Your task to perform on an android device: turn notification dots on Image 0: 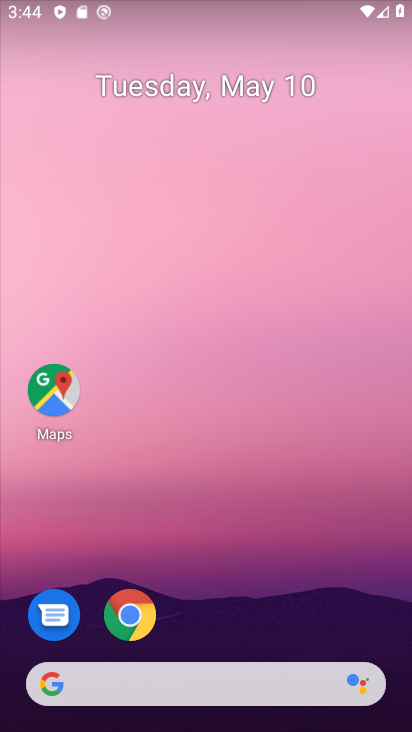
Step 0: drag from (217, 728) to (212, 159)
Your task to perform on an android device: turn notification dots on Image 1: 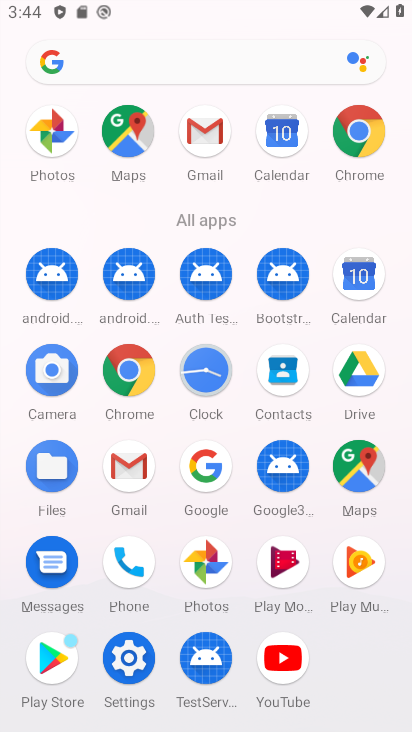
Step 1: click (131, 653)
Your task to perform on an android device: turn notification dots on Image 2: 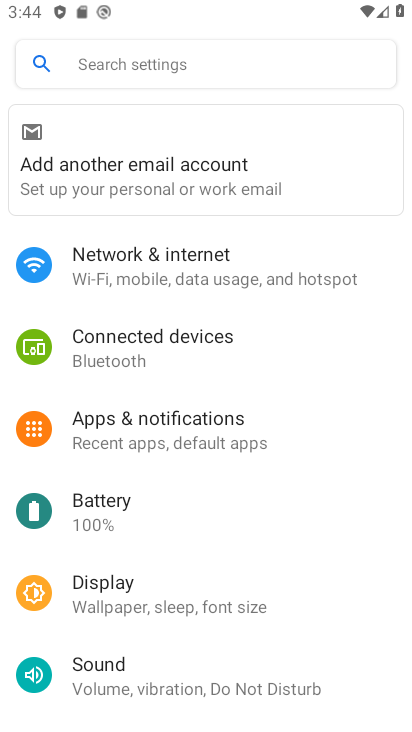
Step 2: click (173, 418)
Your task to perform on an android device: turn notification dots on Image 3: 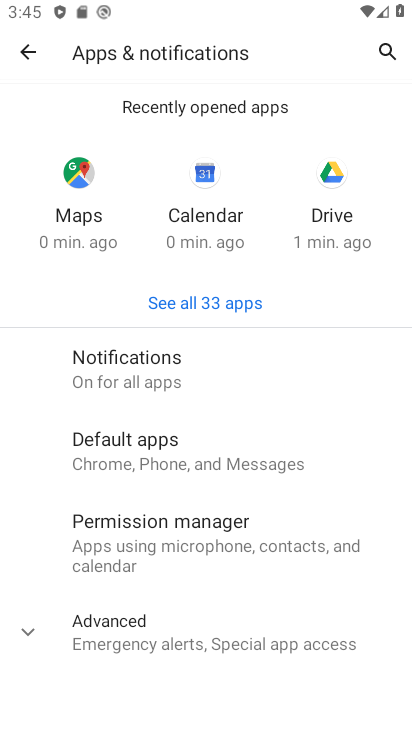
Step 3: click (125, 374)
Your task to perform on an android device: turn notification dots on Image 4: 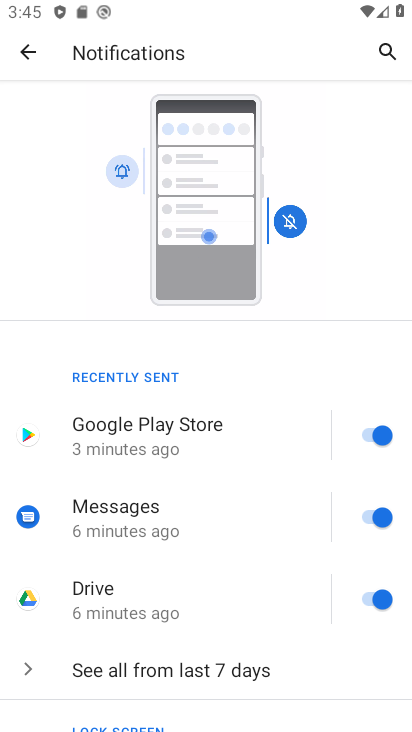
Step 4: drag from (199, 654) to (185, 355)
Your task to perform on an android device: turn notification dots on Image 5: 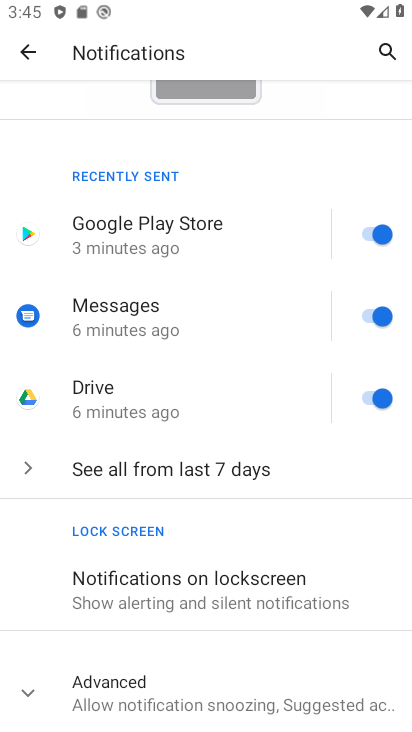
Step 5: click (206, 699)
Your task to perform on an android device: turn notification dots on Image 6: 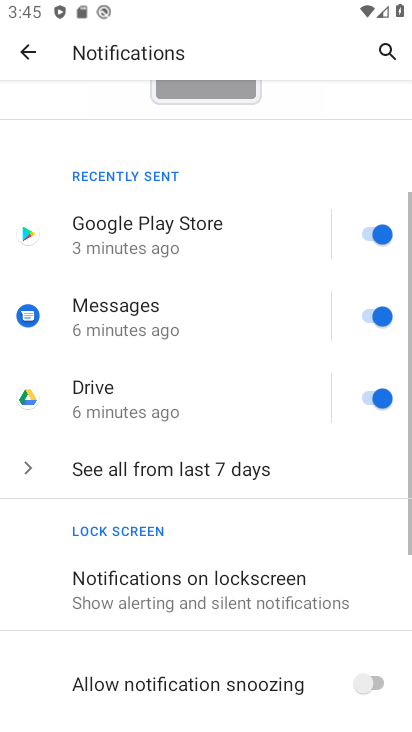
Step 6: task complete